Your task to perform on an android device: What's the weather? Image 0: 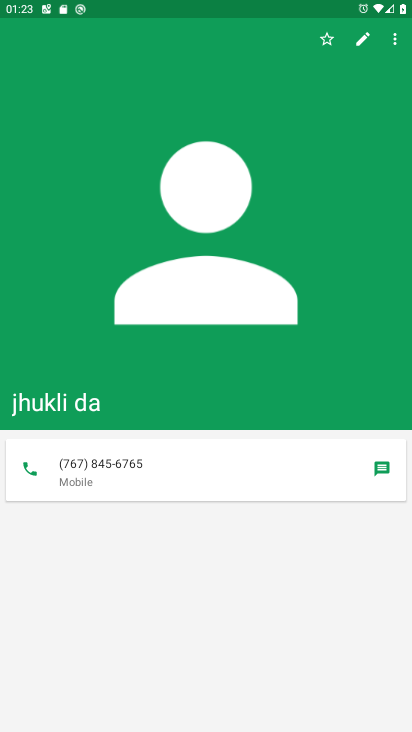
Step 0: press home button
Your task to perform on an android device: What's the weather? Image 1: 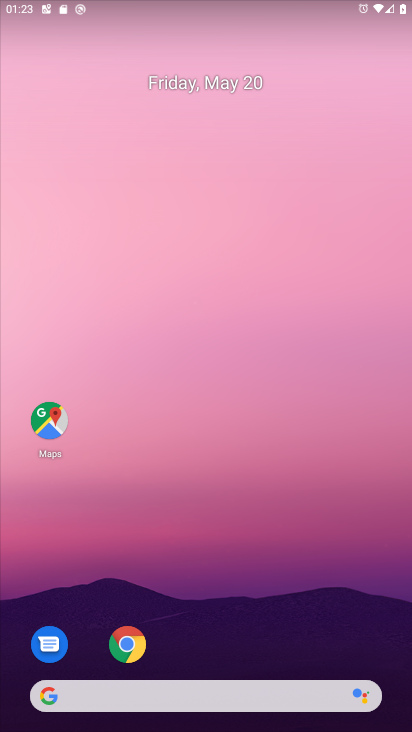
Step 1: drag from (169, 671) to (144, 348)
Your task to perform on an android device: What's the weather? Image 2: 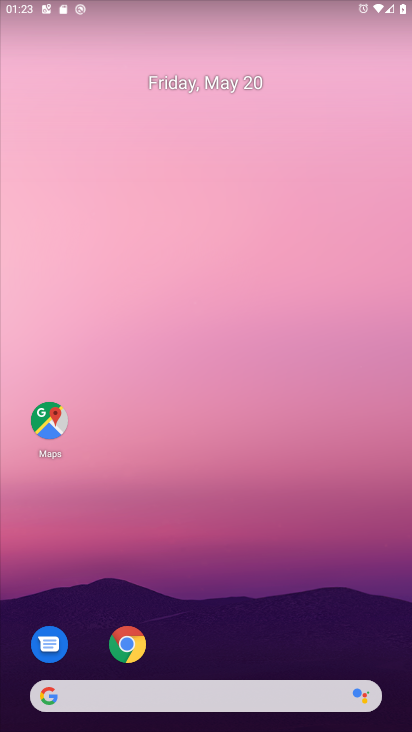
Step 2: drag from (193, 673) to (197, 268)
Your task to perform on an android device: What's the weather? Image 3: 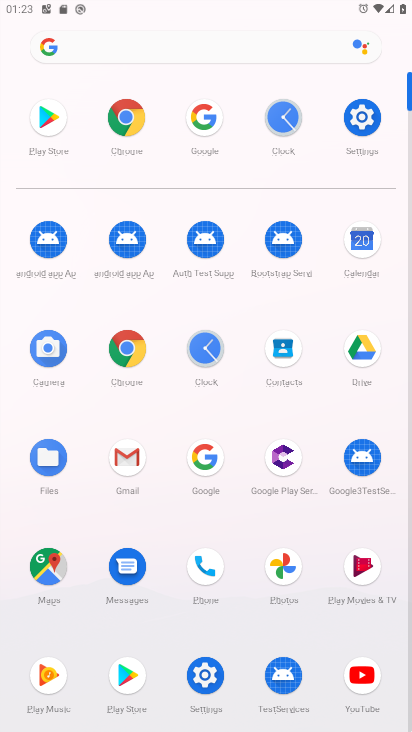
Step 3: click (207, 454)
Your task to perform on an android device: What's the weather? Image 4: 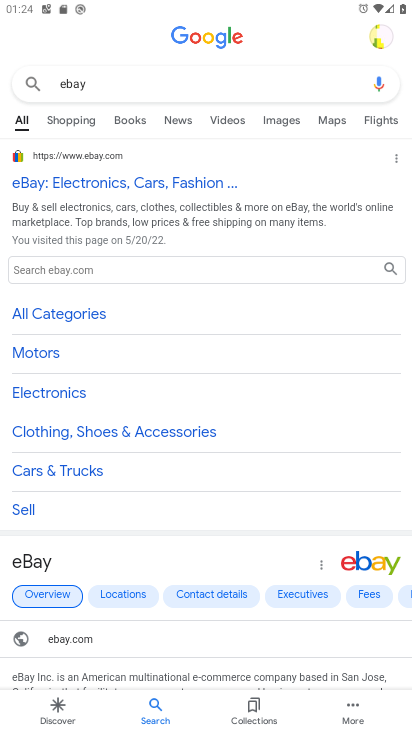
Step 4: click (135, 82)
Your task to perform on an android device: What's the weather? Image 5: 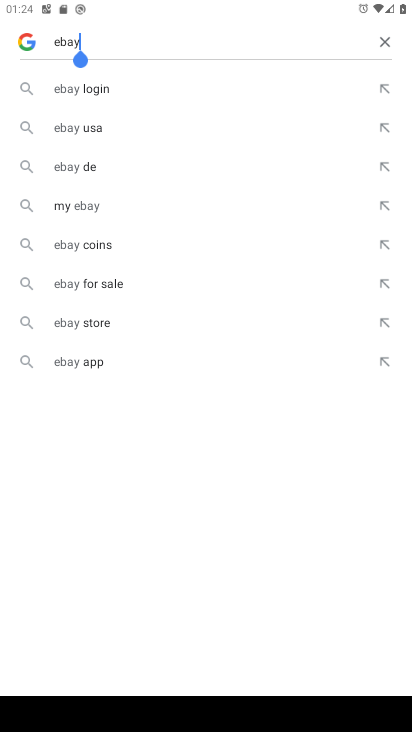
Step 5: click (386, 41)
Your task to perform on an android device: What's the weather? Image 6: 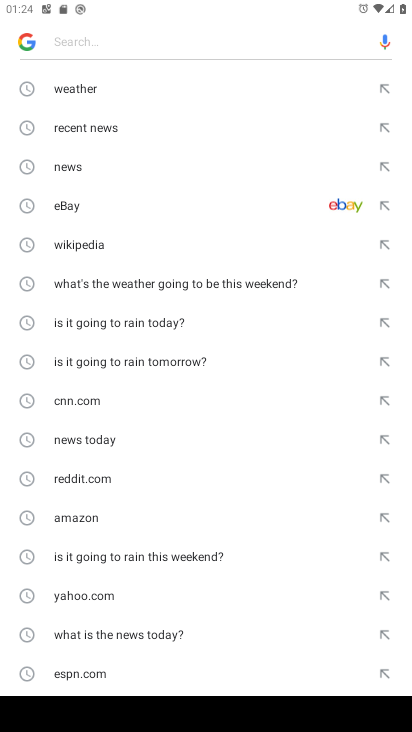
Step 6: click (83, 95)
Your task to perform on an android device: What's the weather? Image 7: 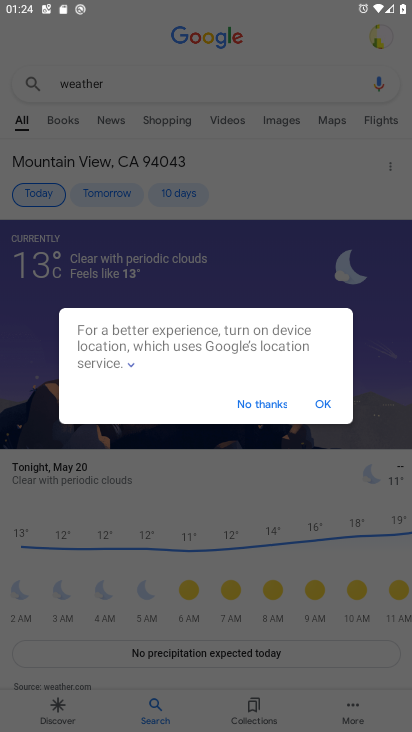
Step 7: drag from (189, 631) to (190, 324)
Your task to perform on an android device: What's the weather? Image 8: 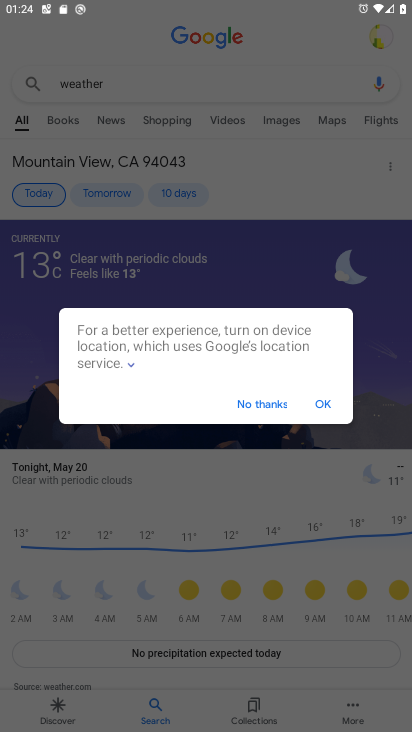
Step 8: click (329, 397)
Your task to perform on an android device: What's the weather? Image 9: 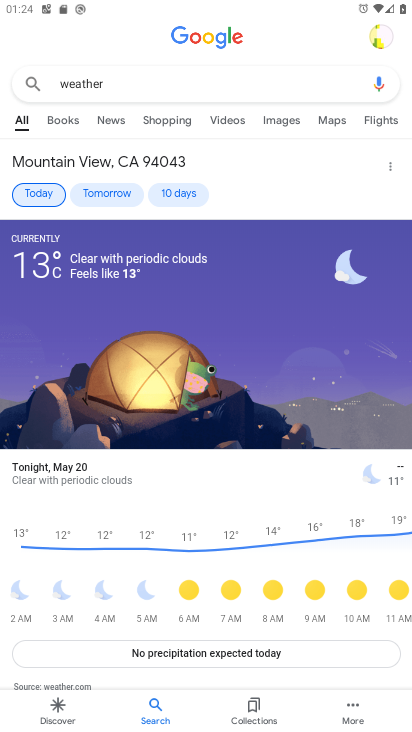
Step 9: task complete